Your task to perform on an android device: open app "Mercado Libre" (install if not already installed) Image 0: 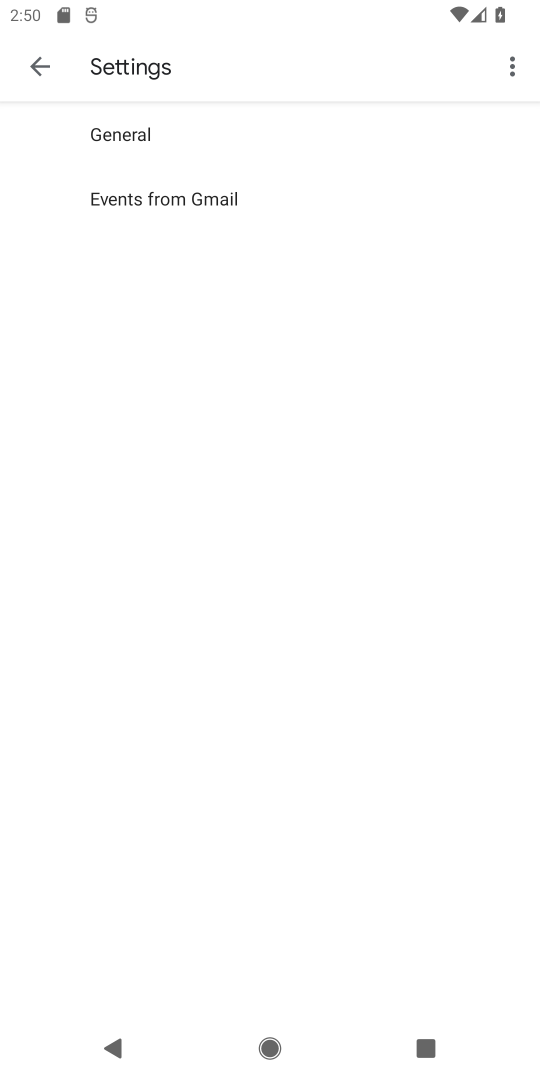
Step 0: press home button
Your task to perform on an android device: open app "Mercado Libre" (install if not already installed) Image 1: 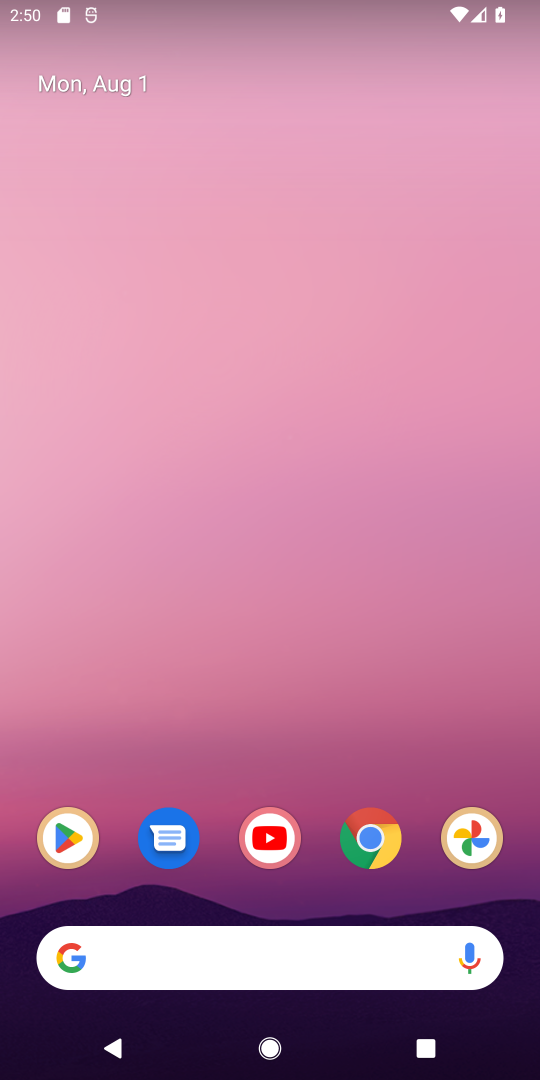
Step 1: click (81, 844)
Your task to perform on an android device: open app "Mercado Libre" (install if not already installed) Image 2: 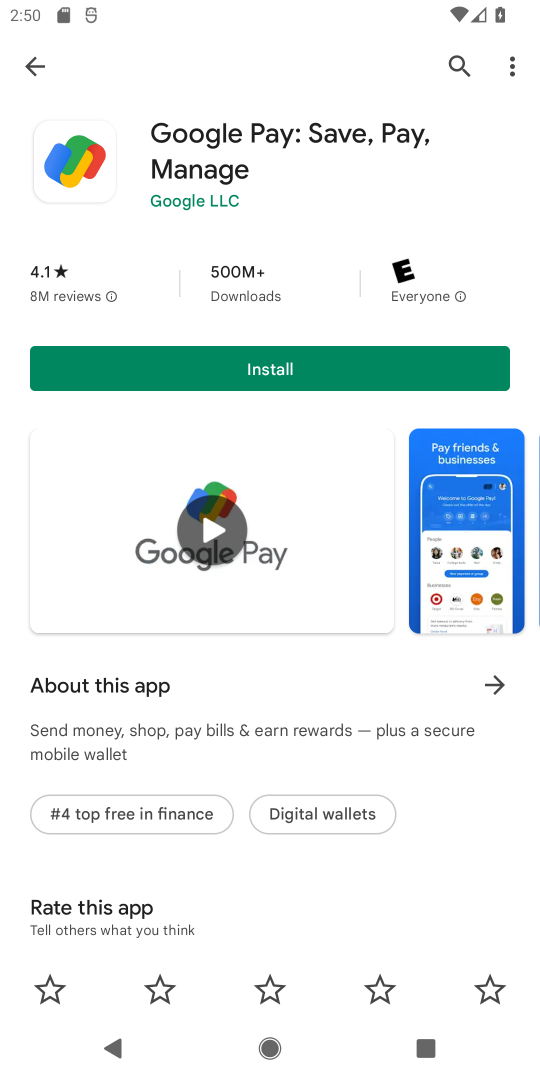
Step 2: click (439, 61)
Your task to perform on an android device: open app "Mercado Libre" (install if not already installed) Image 3: 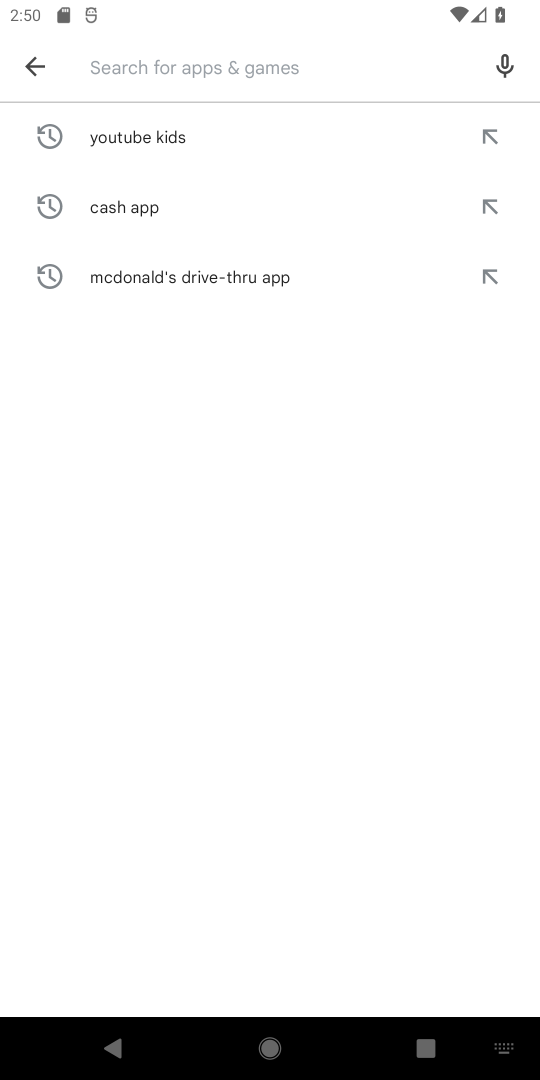
Step 3: type "Mercado Libre"
Your task to perform on an android device: open app "Mercado Libre" (install if not already installed) Image 4: 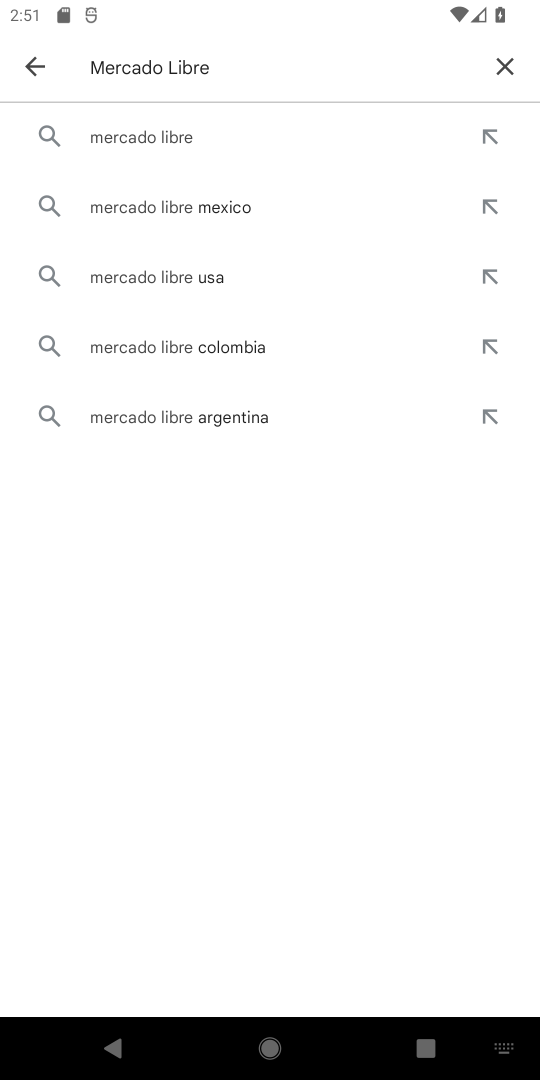
Step 4: click (214, 133)
Your task to perform on an android device: open app "Mercado Libre" (install if not already installed) Image 5: 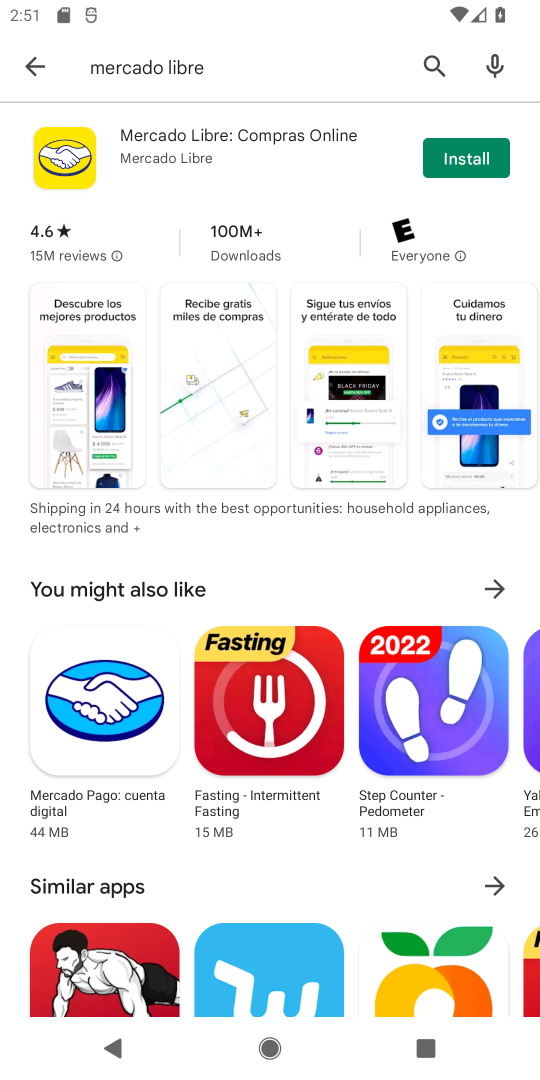
Step 5: click (440, 151)
Your task to perform on an android device: open app "Mercado Libre" (install if not already installed) Image 6: 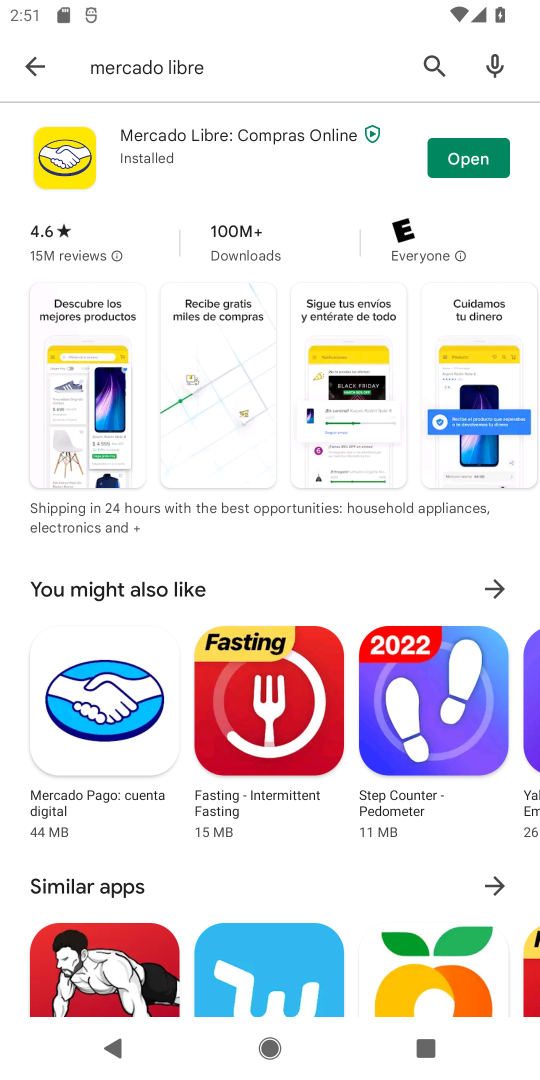
Step 6: click (464, 164)
Your task to perform on an android device: open app "Mercado Libre" (install if not already installed) Image 7: 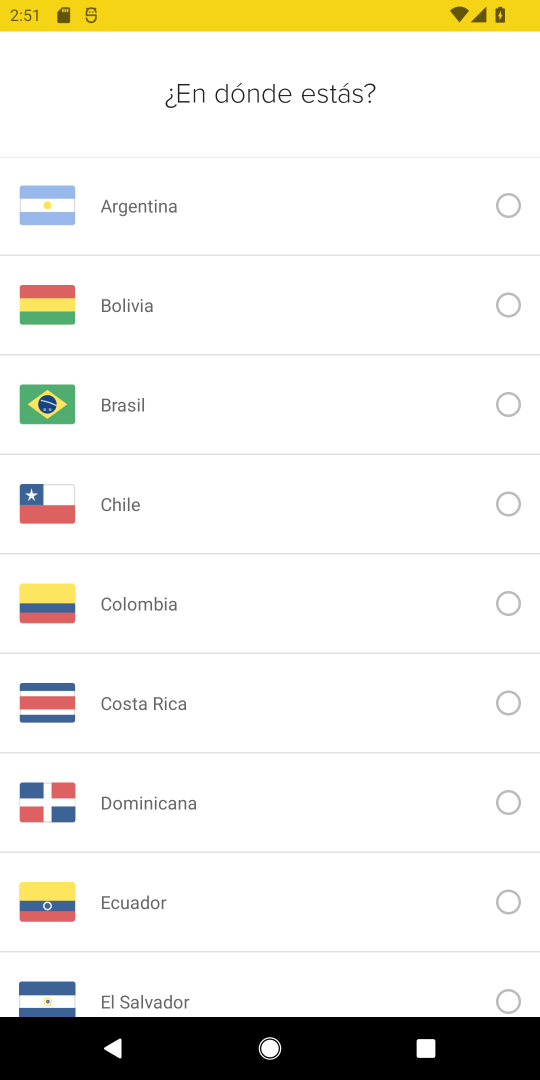
Step 7: press home button
Your task to perform on an android device: open app "Mercado Libre" (install if not already installed) Image 8: 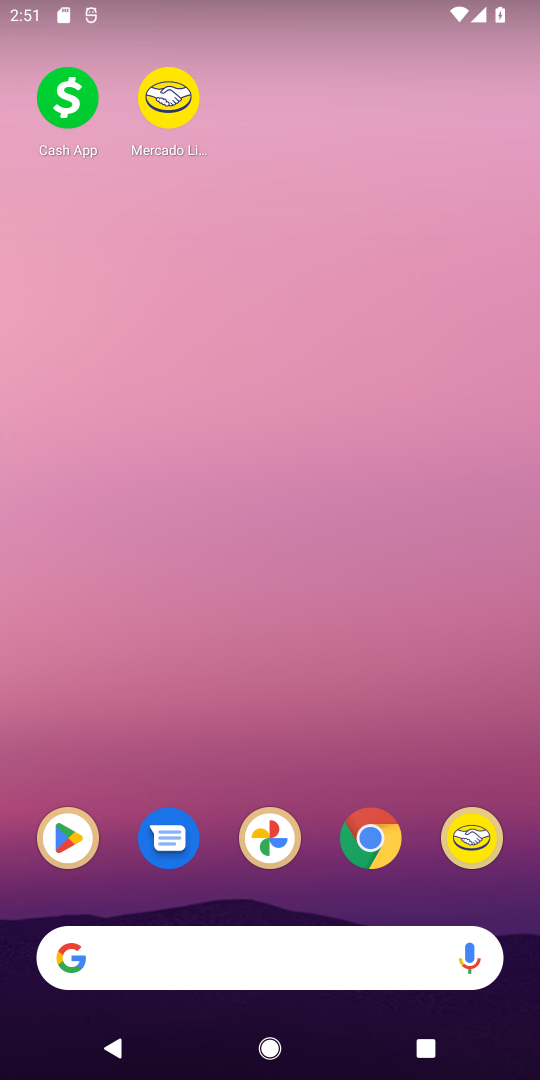
Step 8: click (73, 856)
Your task to perform on an android device: open app "Mercado Libre" (install if not already installed) Image 9: 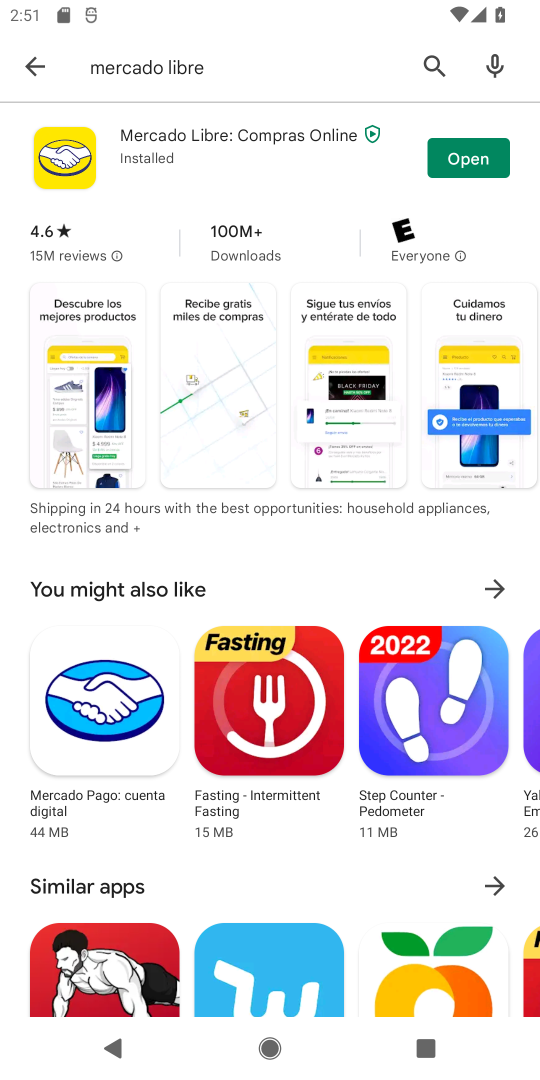
Step 9: click (486, 165)
Your task to perform on an android device: open app "Mercado Libre" (install if not already installed) Image 10: 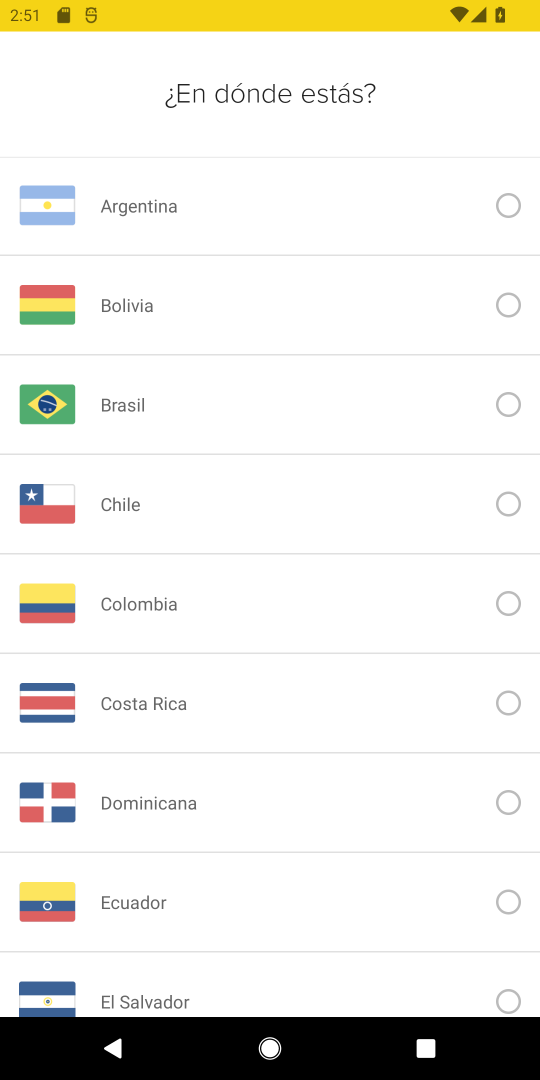
Step 10: task complete